Your task to perform on an android device: Go to network settings Image 0: 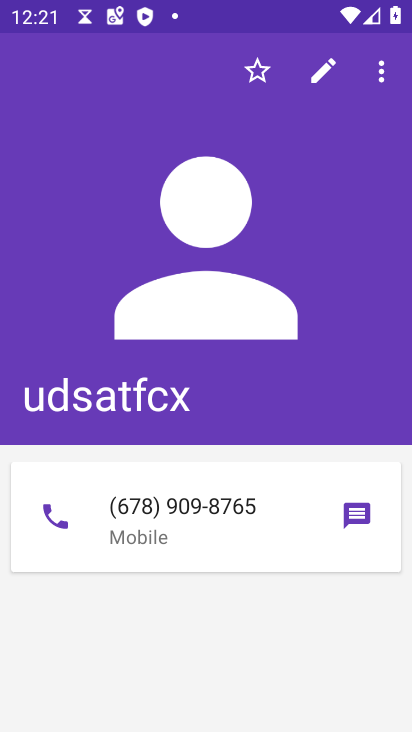
Step 0: press home button
Your task to perform on an android device: Go to network settings Image 1: 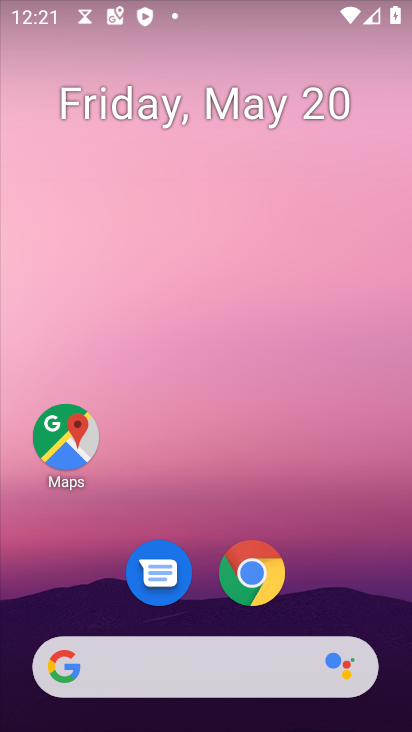
Step 1: drag from (324, 606) to (271, 15)
Your task to perform on an android device: Go to network settings Image 2: 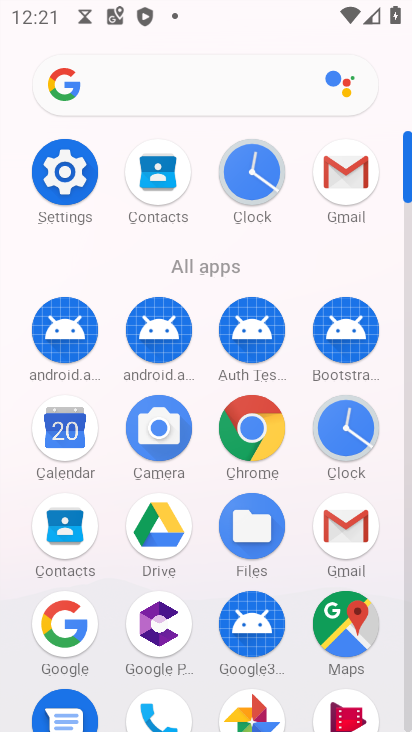
Step 2: click (66, 176)
Your task to perform on an android device: Go to network settings Image 3: 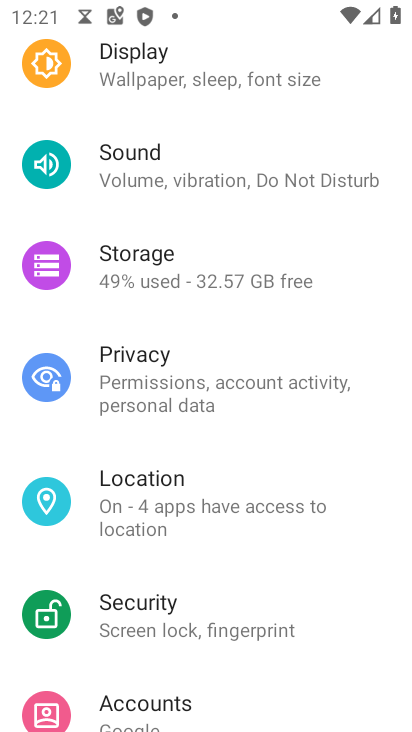
Step 3: drag from (171, 309) to (140, 620)
Your task to perform on an android device: Go to network settings Image 4: 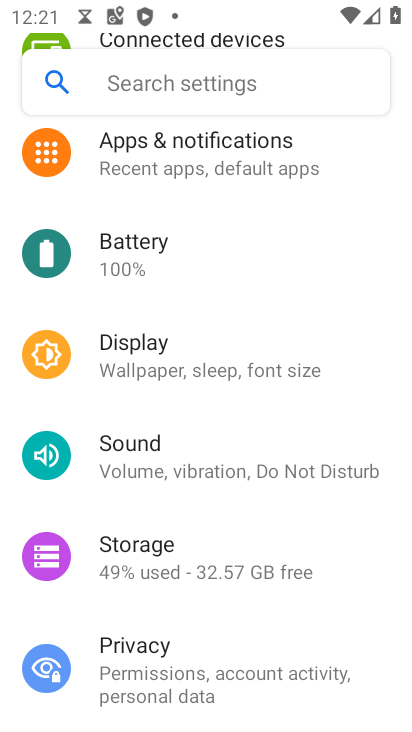
Step 4: drag from (162, 163) to (128, 617)
Your task to perform on an android device: Go to network settings Image 5: 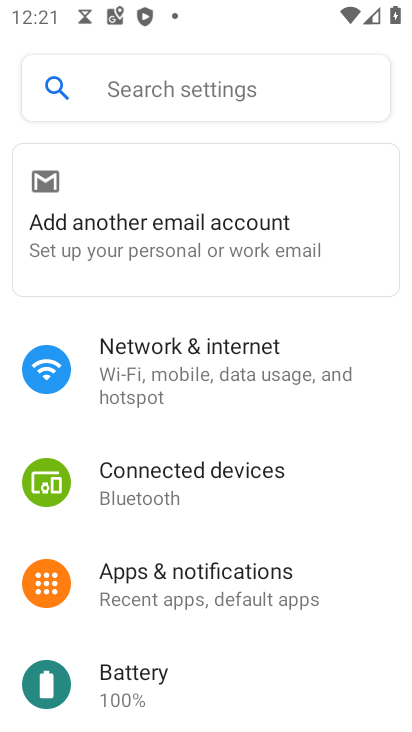
Step 5: click (186, 361)
Your task to perform on an android device: Go to network settings Image 6: 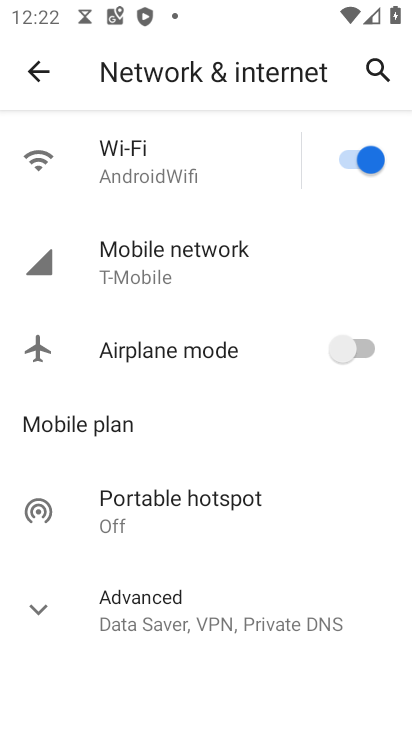
Step 6: click (102, 249)
Your task to perform on an android device: Go to network settings Image 7: 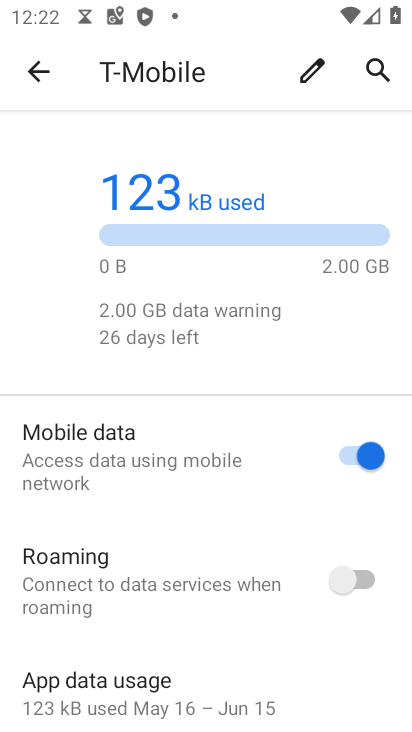
Step 7: task complete